Your task to perform on an android device: read, delete, or share a saved page in the chrome app Image 0: 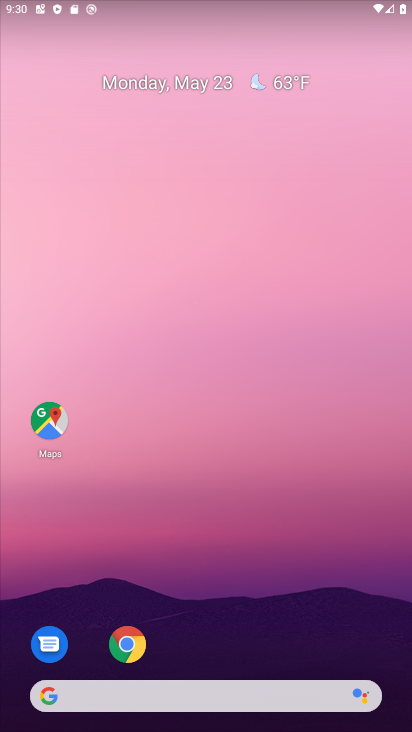
Step 0: click (127, 638)
Your task to perform on an android device: read, delete, or share a saved page in the chrome app Image 1: 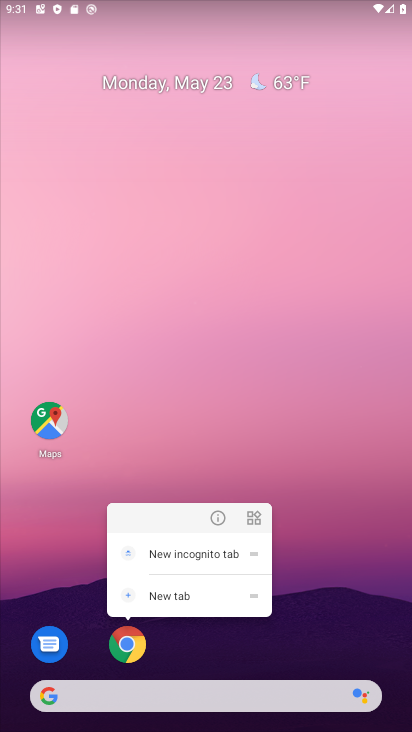
Step 1: click (126, 643)
Your task to perform on an android device: read, delete, or share a saved page in the chrome app Image 2: 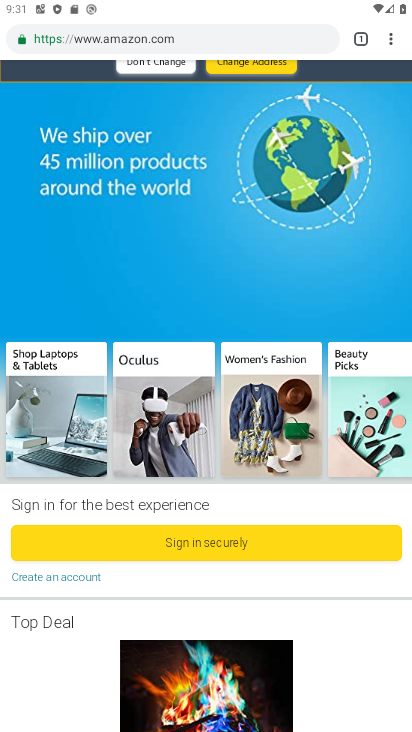
Step 2: click (389, 29)
Your task to perform on an android device: read, delete, or share a saved page in the chrome app Image 3: 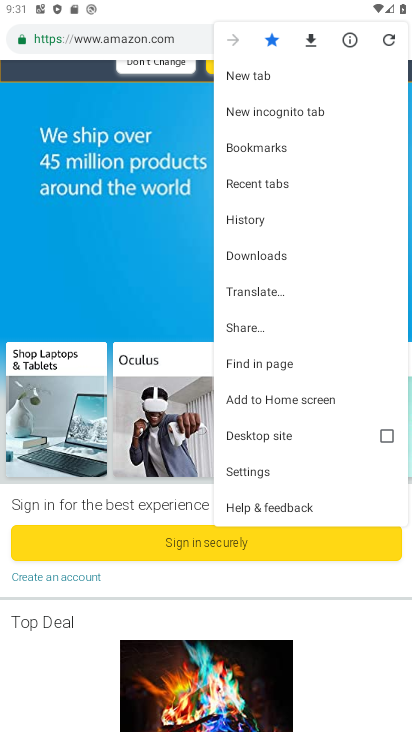
Step 3: click (261, 251)
Your task to perform on an android device: read, delete, or share a saved page in the chrome app Image 4: 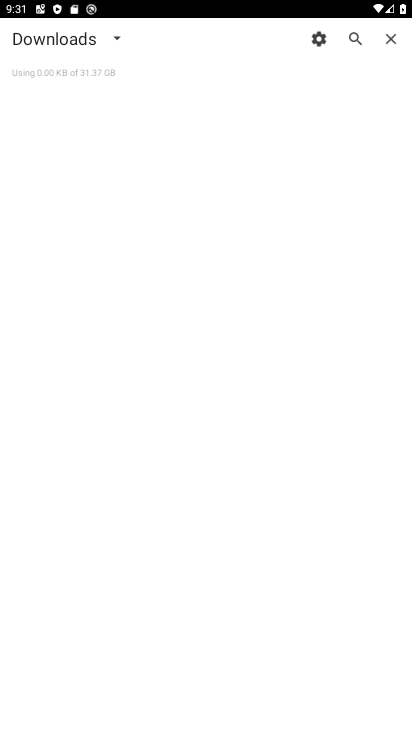
Step 4: task complete